Your task to perform on an android device: Go to Yahoo.com Image 0: 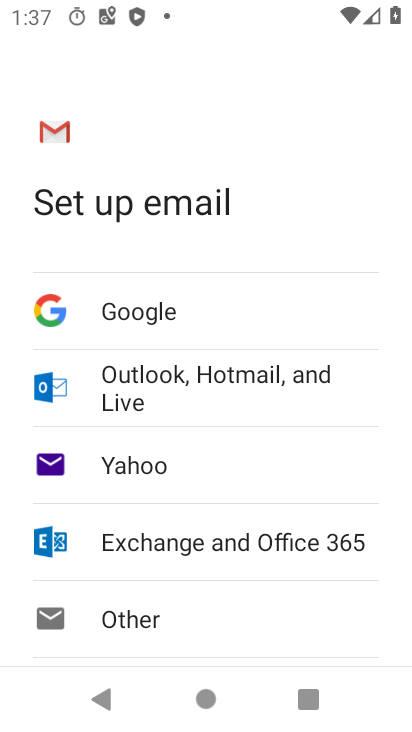
Step 0: press home button
Your task to perform on an android device: Go to Yahoo.com Image 1: 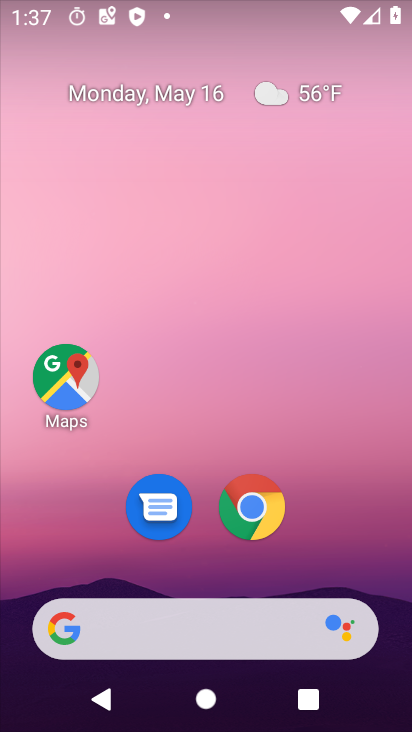
Step 1: click (218, 548)
Your task to perform on an android device: Go to Yahoo.com Image 2: 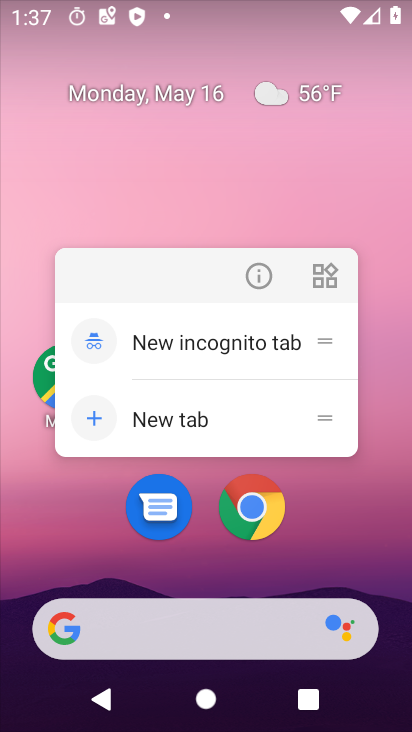
Step 2: click (255, 503)
Your task to perform on an android device: Go to Yahoo.com Image 3: 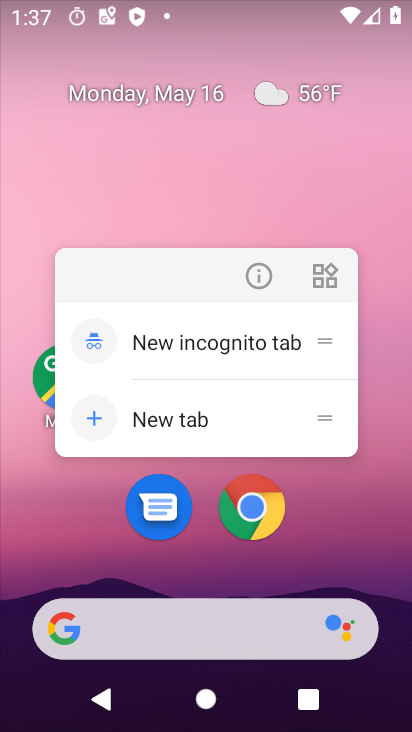
Step 3: click (255, 503)
Your task to perform on an android device: Go to Yahoo.com Image 4: 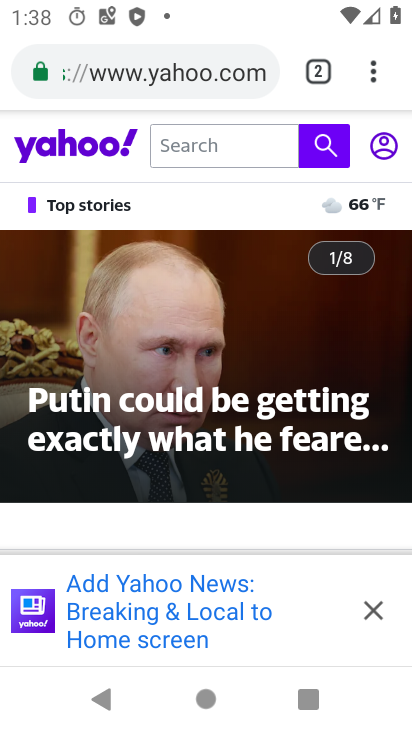
Step 4: task complete